Your task to perform on an android device: Open settings Image 0: 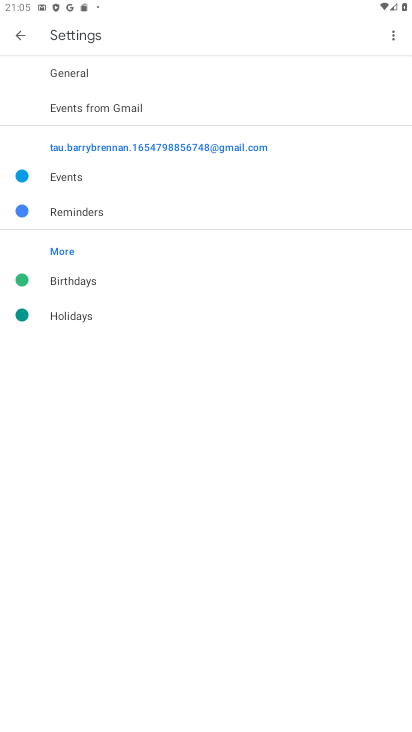
Step 0: press home button
Your task to perform on an android device: Open settings Image 1: 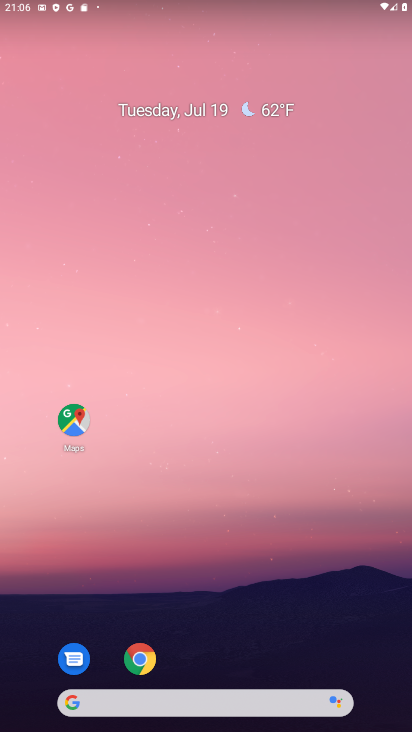
Step 1: drag from (341, 687) to (208, 319)
Your task to perform on an android device: Open settings Image 2: 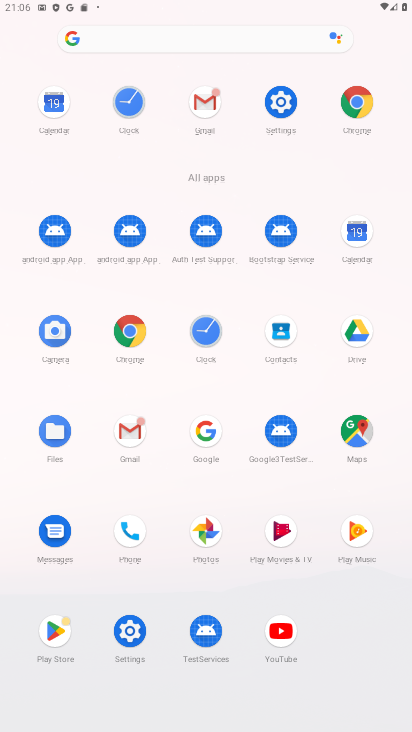
Step 2: click (131, 626)
Your task to perform on an android device: Open settings Image 3: 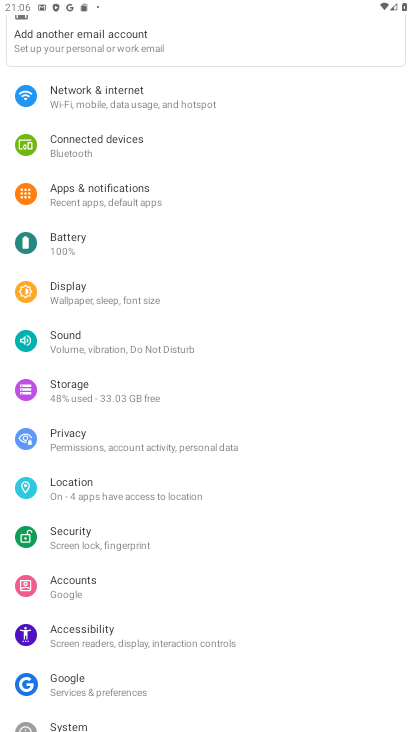
Step 3: task complete